Your task to perform on an android device: allow cookies in the chrome app Image 0: 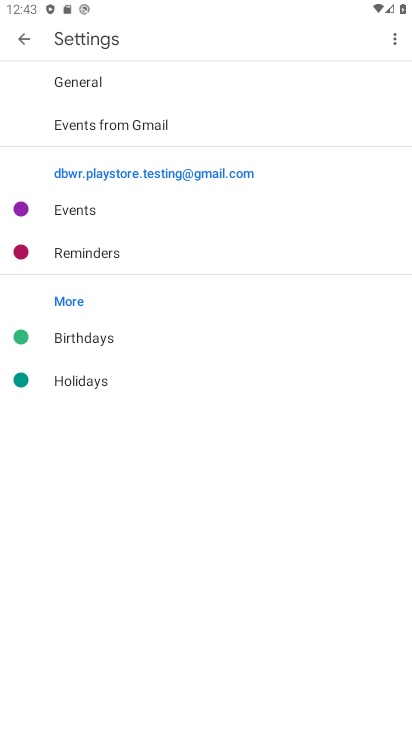
Step 0: drag from (295, 602) to (182, 261)
Your task to perform on an android device: allow cookies in the chrome app Image 1: 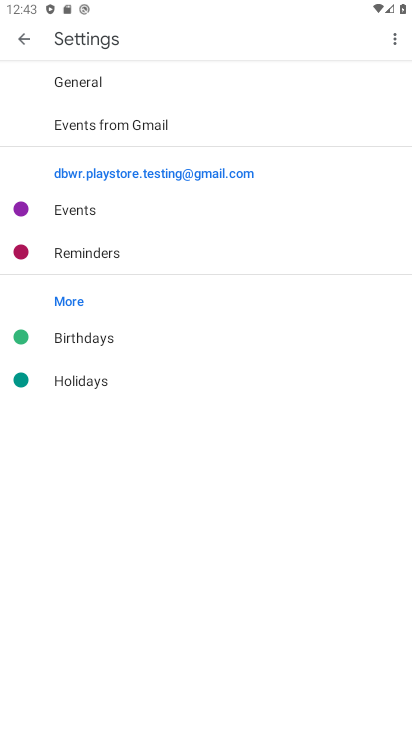
Step 1: press home button
Your task to perform on an android device: allow cookies in the chrome app Image 2: 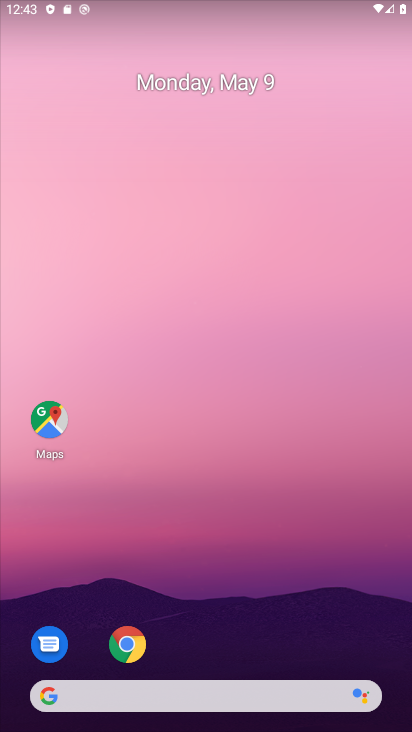
Step 2: click (129, 665)
Your task to perform on an android device: allow cookies in the chrome app Image 3: 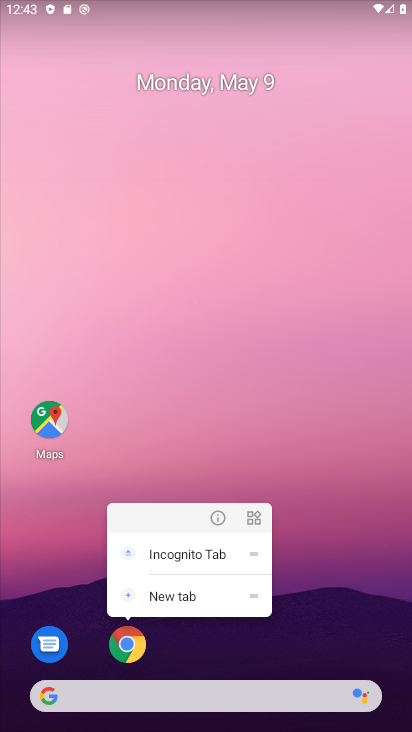
Step 3: click (126, 655)
Your task to perform on an android device: allow cookies in the chrome app Image 4: 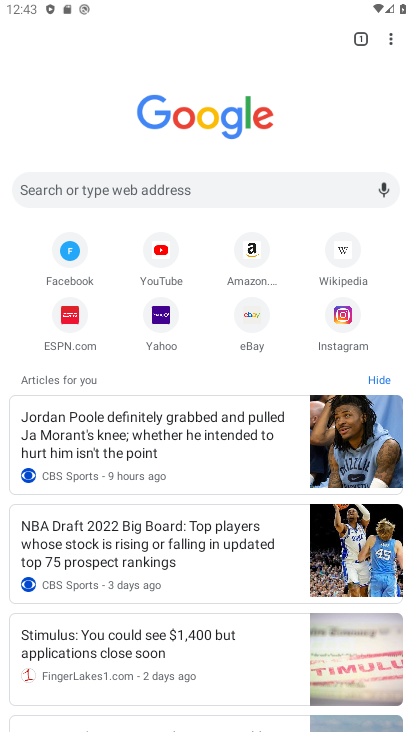
Step 4: click (394, 38)
Your task to perform on an android device: allow cookies in the chrome app Image 5: 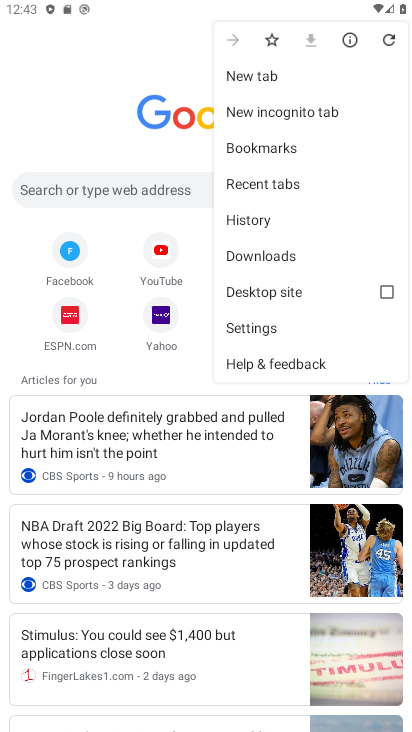
Step 5: click (273, 331)
Your task to perform on an android device: allow cookies in the chrome app Image 6: 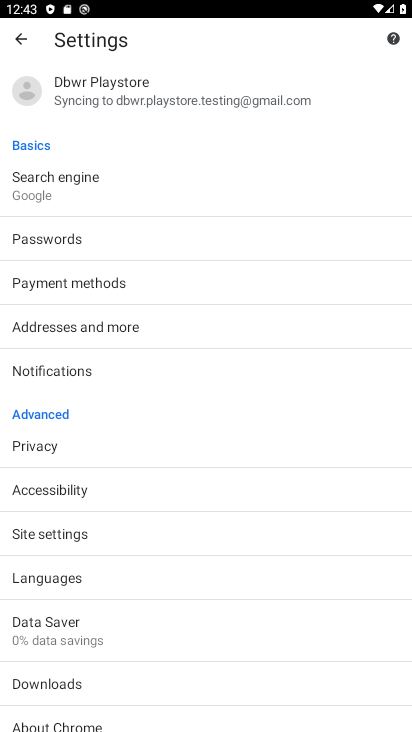
Step 6: drag from (246, 651) to (204, 164)
Your task to perform on an android device: allow cookies in the chrome app Image 7: 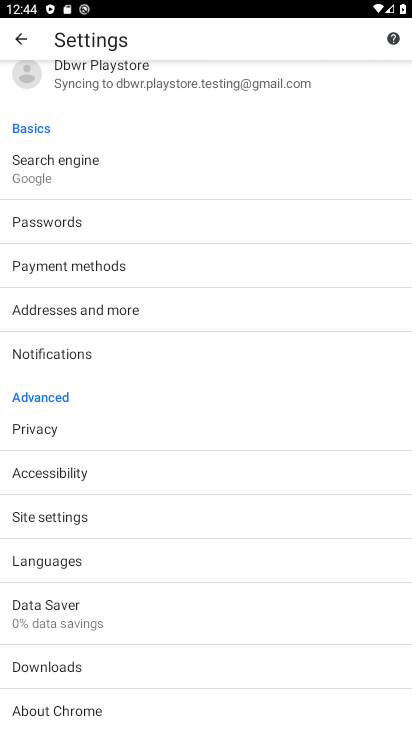
Step 7: click (65, 525)
Your task to perform on an android device: allow cookies in the chrome app Image 8: 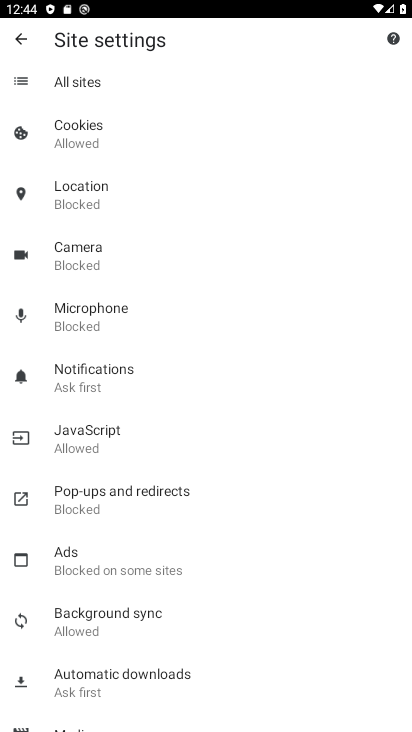
Step 8: click (106, 136)
Your task to perform on an android device: allow cookies in the chrome app Image 9: 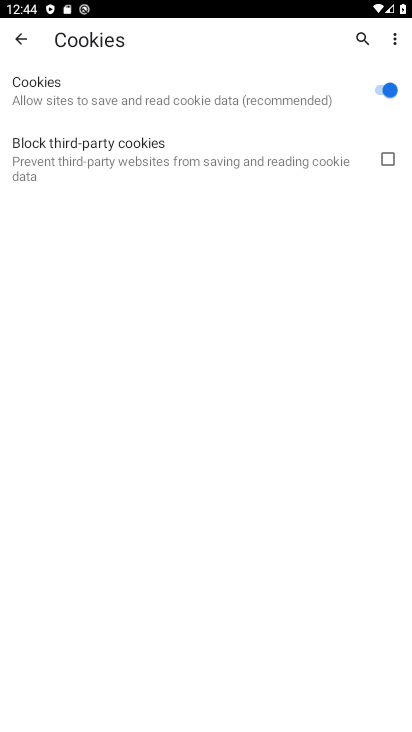
Step 9: task complete